Your task to perform on an android device: Mark as unread the last email from tau.vivianbrenna.1654798856750@gmail.com Image 0: 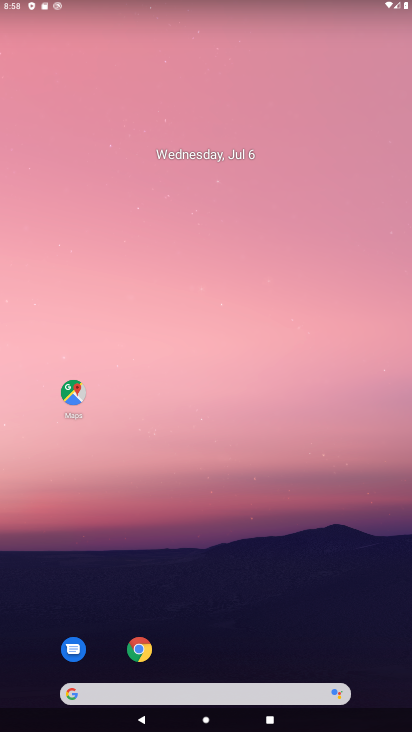
Step 0: drag from (199, 707) to (177, 5)
Your task to perform on an android device: Mark as unread the last email from tau.vivianbrenna.1654798856750@gmail.com Image 1: 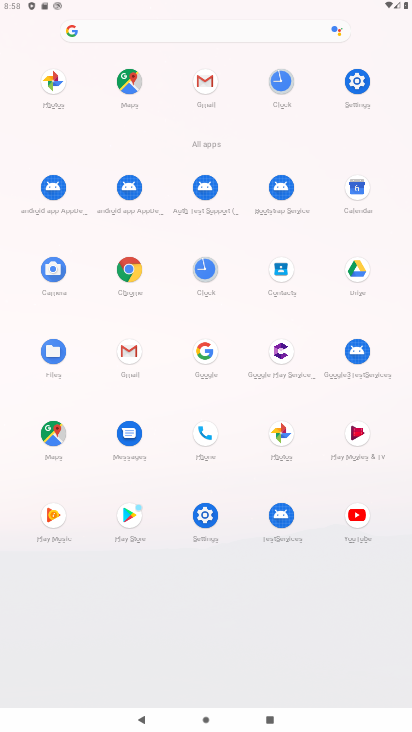
Step 1: click (196, 102)
Your task to perform on an android device: Mark as unread the last email from tau.vivianbrenna.1654798856750@gmail.com Image 2: 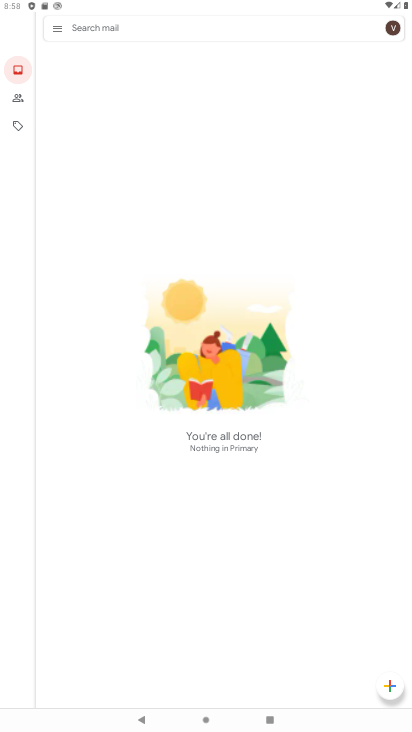
Step 2: task complete